Your task to perform on an android device: turn off data saver in the chrome app Image 0: 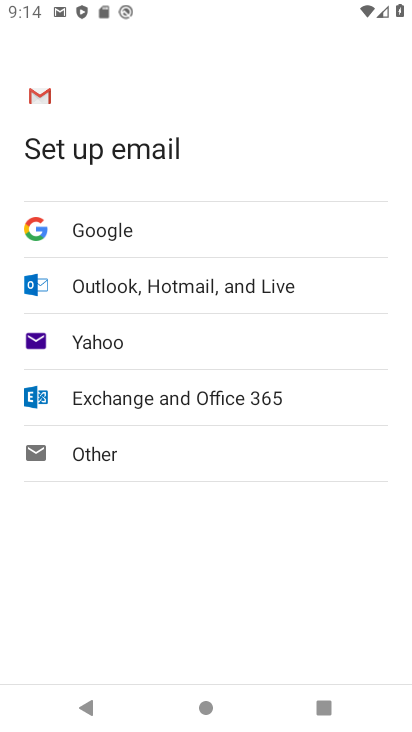
Step 0: press home button
Your task to perform on an android device: turn off data saver in the chrome app Image 1: 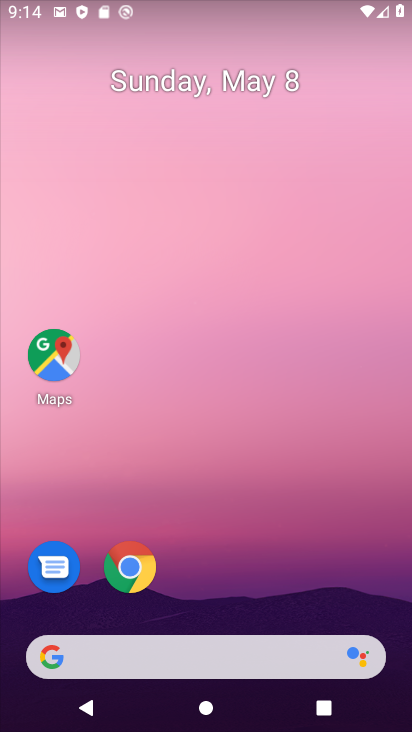
Step 1: click (127, 557)
Your task to perform on an android device: turn off data saver in the chrome app Image 2: 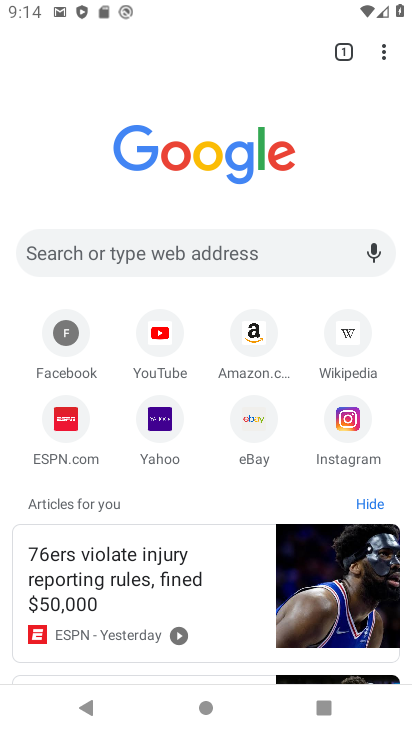
Step 2: drag from (384, 47) to (215, 430)
Your task to perform on an android device: turn off data saver in the chrome app Image 3: 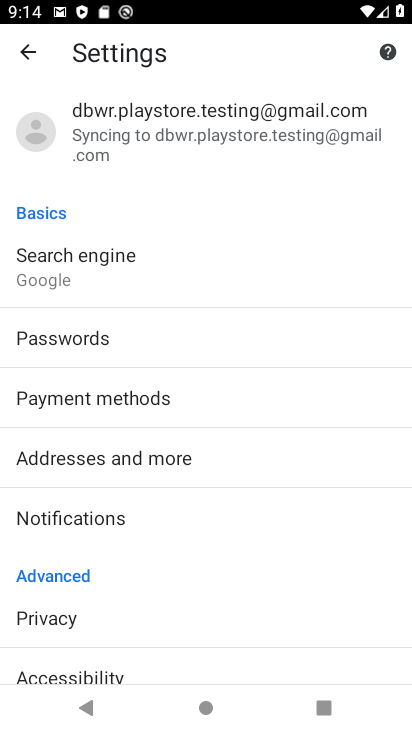
Step 3: drag from (144, 654) to (145, 556)
Your task to perform on an android device: turn off data saver in the chrome app Image 4: 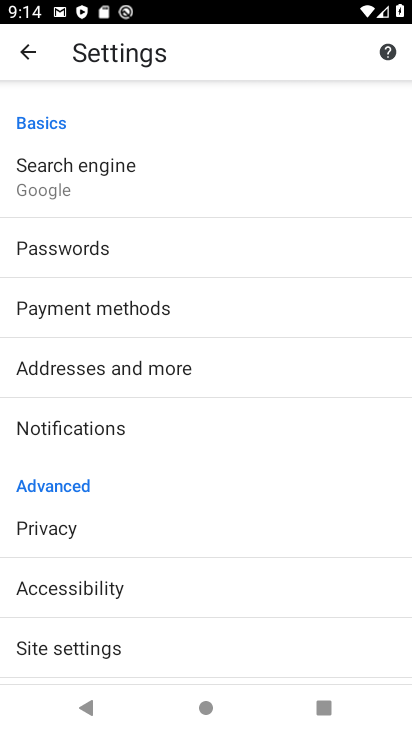
Step 4: drag from (142, 635) to (144, 446)
Your task to perform on an android device: turn off data saver in the chrome app Image 5: 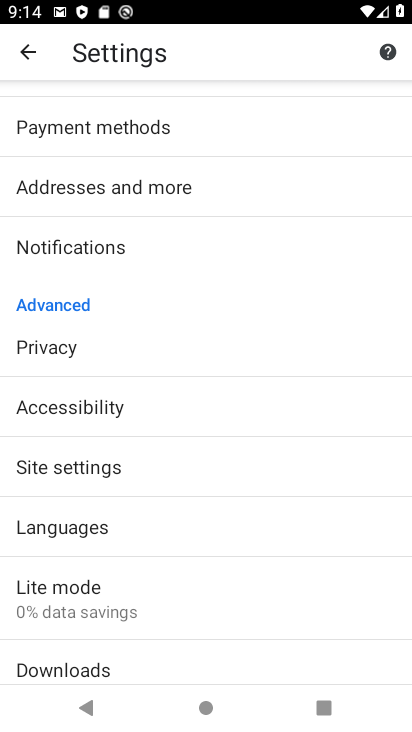
Step 5: click (96, 588)
Your task to perform on an android device: turn off data saver in the chrome app Image 6: 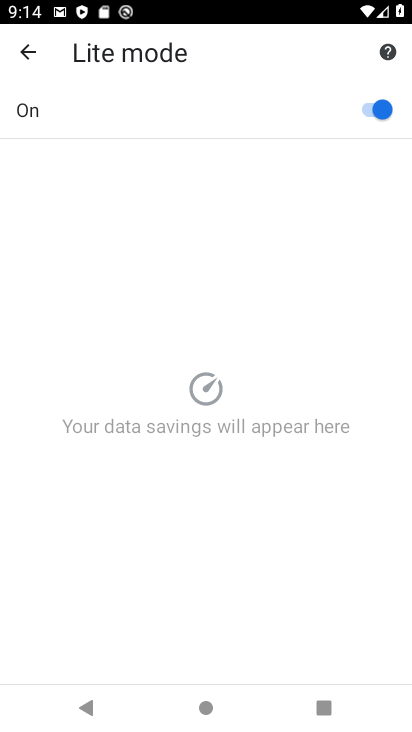
Step 6: click (370, 108)
Your task to perform on an android device: turn off data saver in the chrome app Image 7: 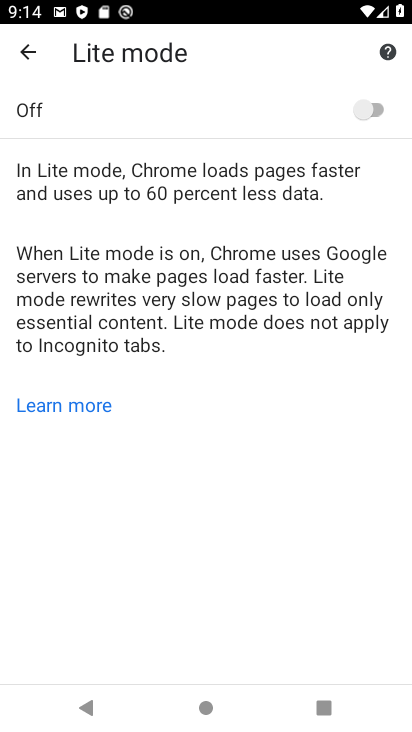
Step 7: task complete